Your task to perform on an android device: check the backup settings in the google photos Image 0: 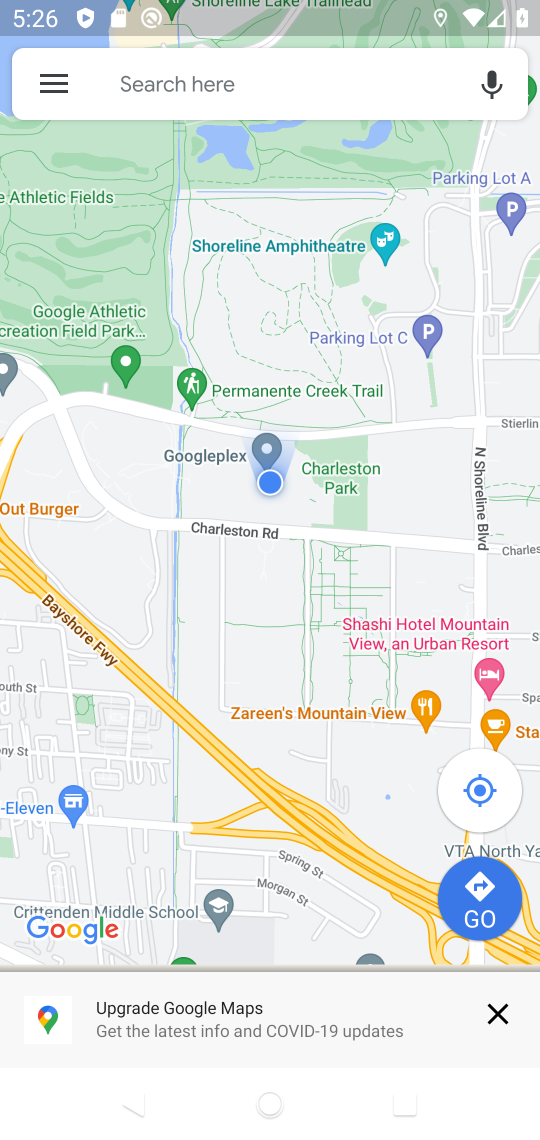
Step 0: press back button
Your task to perform on an android device: check the backup settings in the google photos Image 1: 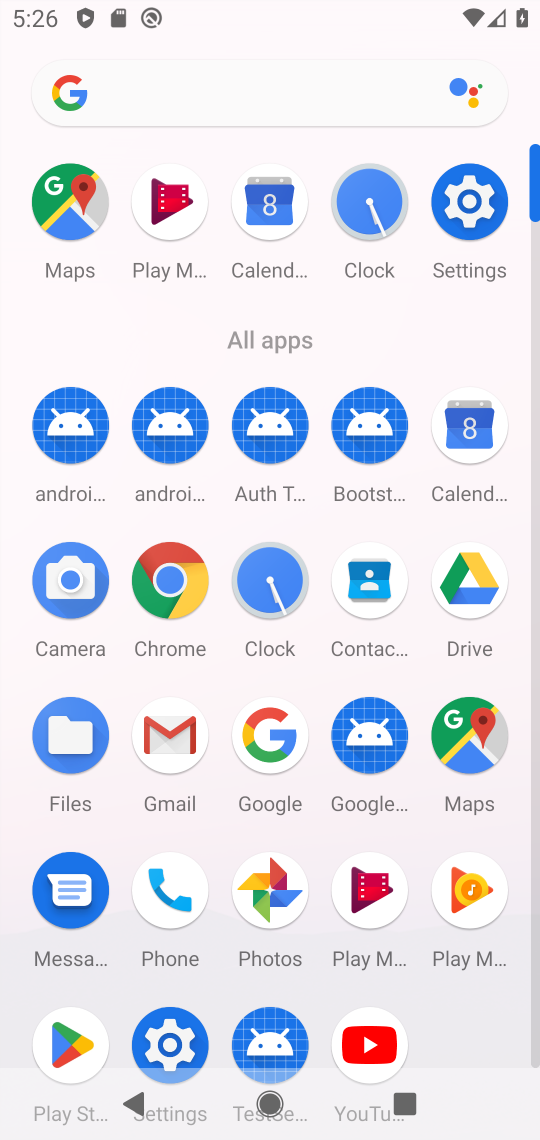
Step 1: click (287, 889)
Your task to perform on an android device: check the backup settings in the google photos Image 2: 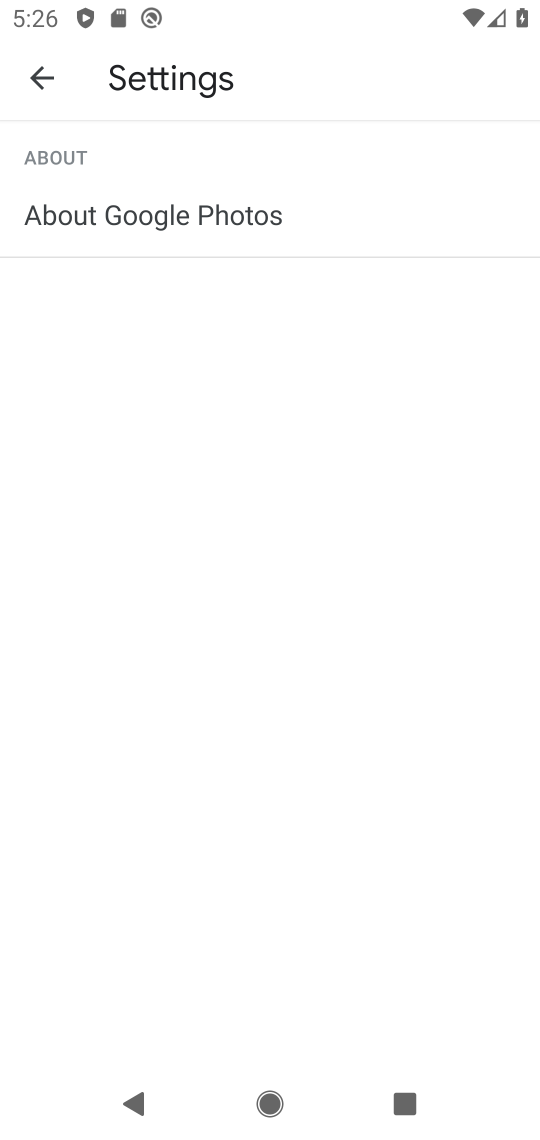
Step 2: click (42, 85)
Your task to perform on an android device: check the backup settings in the google photos Image 3: 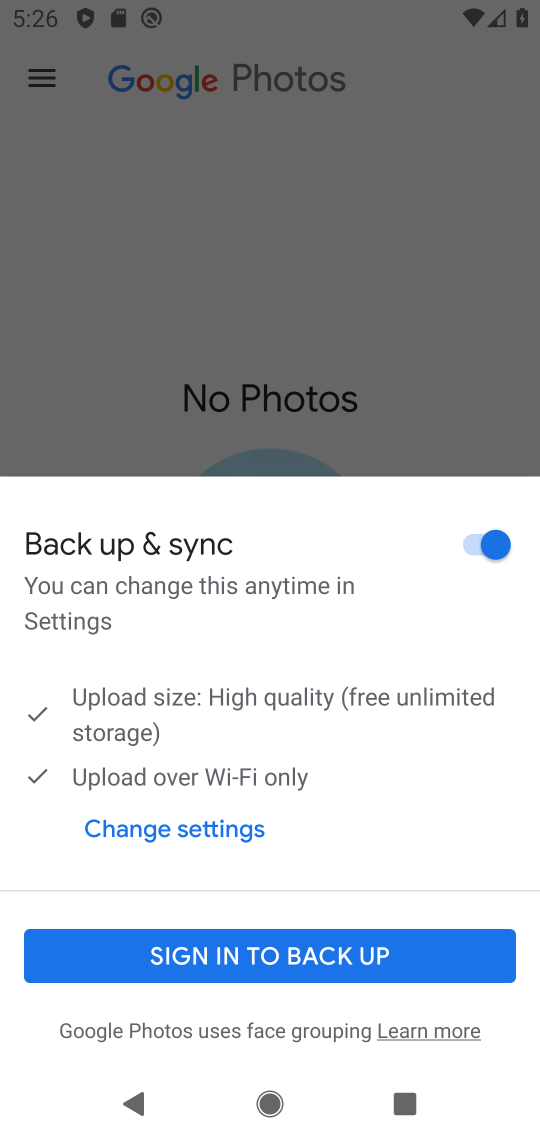
Step 3: click (388, 959)
Your task to perform on an android device: check the backup settings in the google photos Image 4: 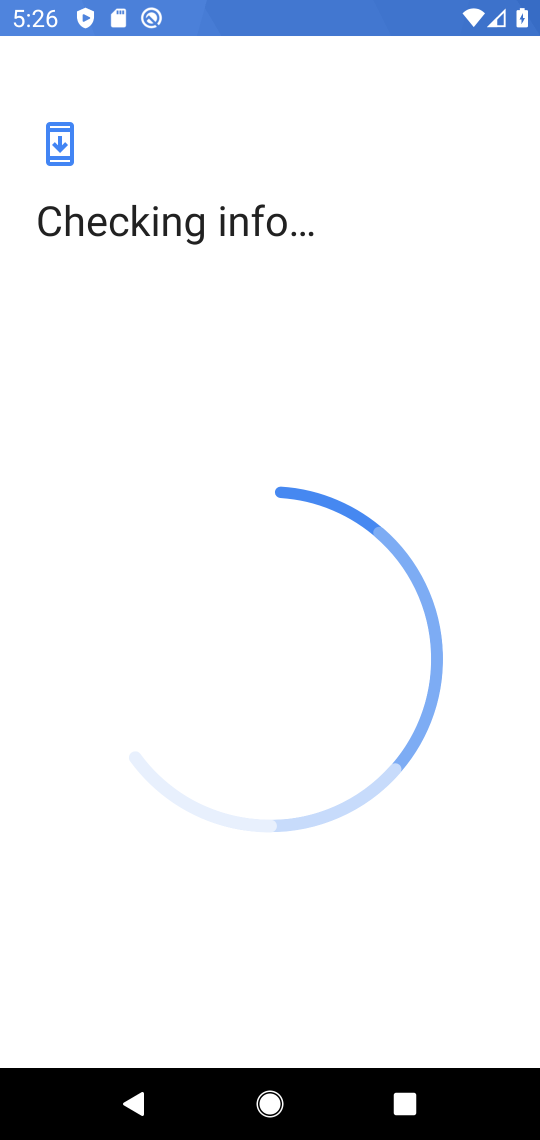
Step 4: task complete